Your task to perform on an android device: turn on the 12-hour format for clock Image 0: 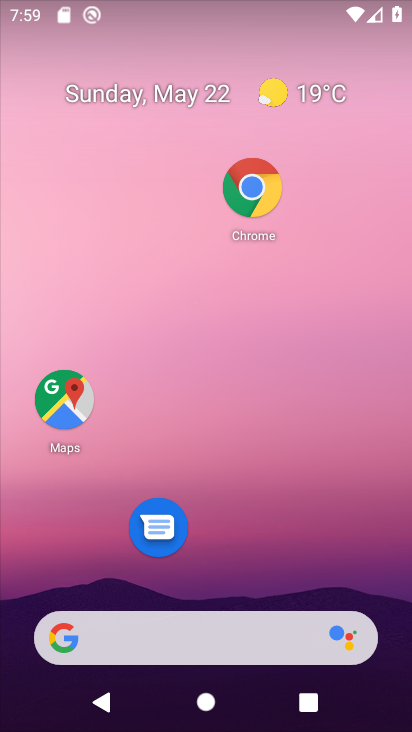
Step 0: press home button
Your task to perform on an android device: turn on the 12-hour format for clock Image 1: 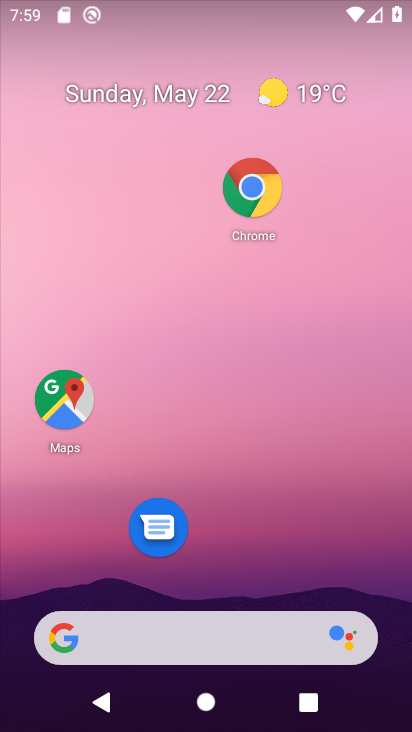
Step 1: drag from (234, 597) to (236, 56)
Your task to perform on an android device: turn on the 12-hour format for clock Image 2: 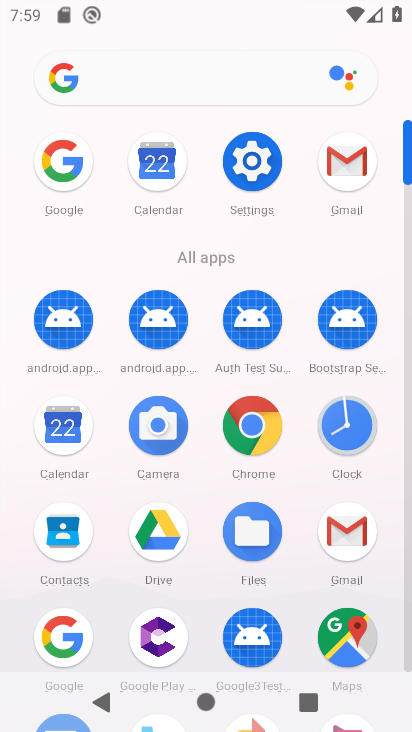
Step 2: click (346, 416)
Your task to perform on an android device: turn on the 12-hour format for clock Image 3: 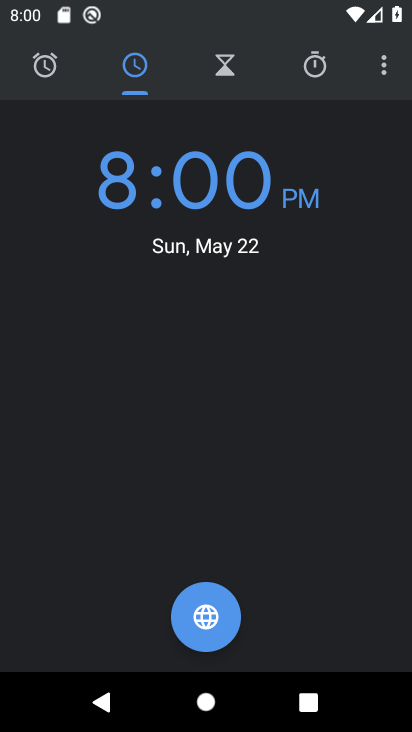
Step 3: click (380, 66)
Your task to perform on an android device: turn on the 12-hour format for clock Image 4: 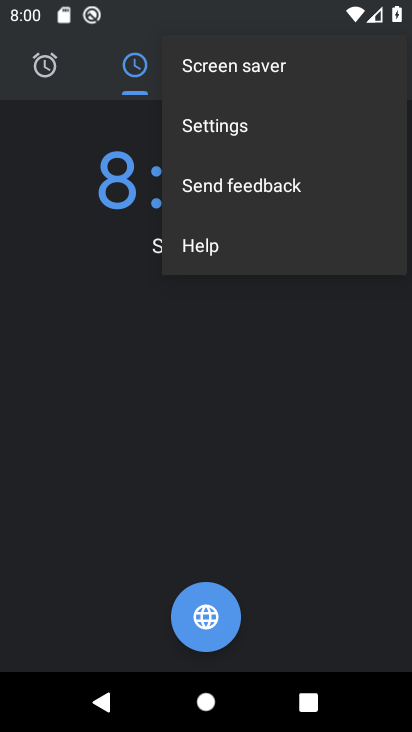
Step 4: click (257, 124)
Your task to perform on an android device: turn on the 12-hour format for clock Image 5: 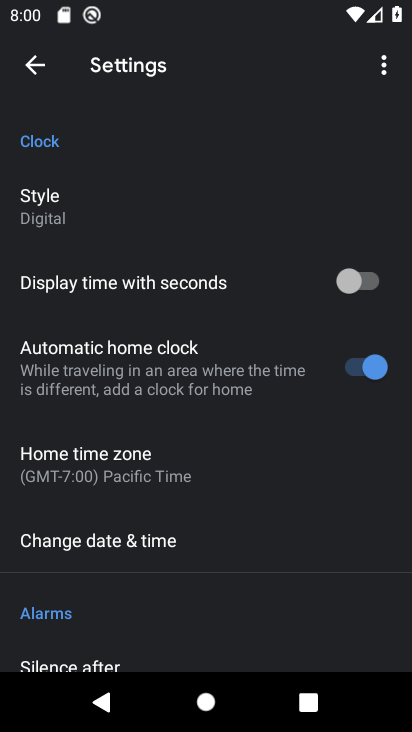
Step 5: click (182, 548)
Your task to perform on an android device: turn on the 12-hour format for clock Image 6: 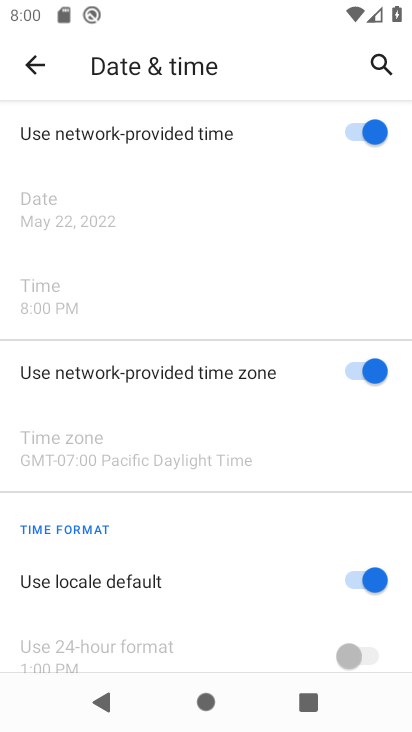
Step 6: click (358, 572)
Your task to perform on an android device: turn on the 12-hour format for clock Image 7: 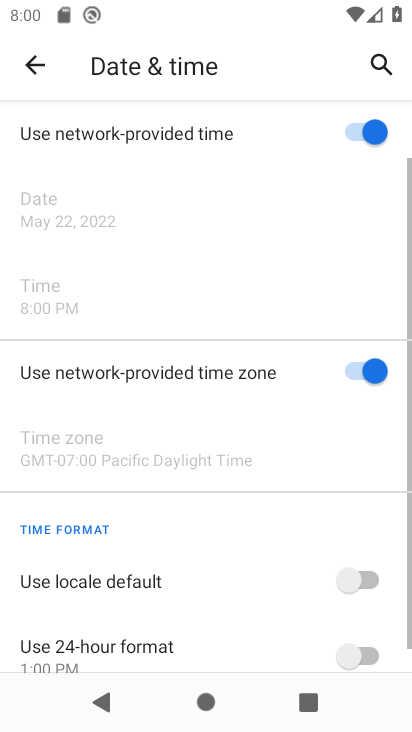
Step 7: click (369, 652)
Your task to perform on an android device: turn on the 12-hour format for clock Image 8: 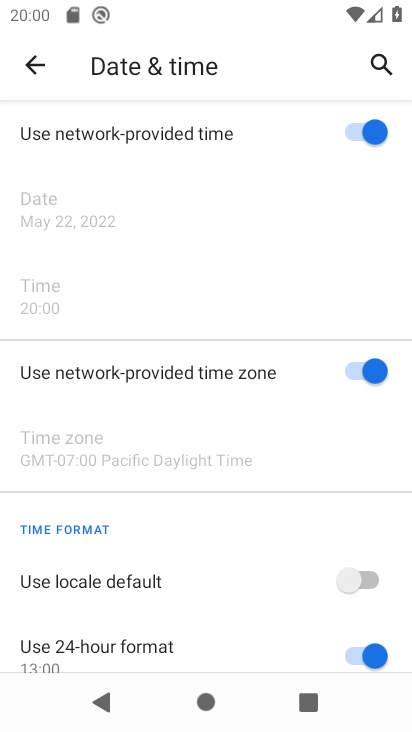
Step 8: click (366, 584)
Your task to perform on an android device: turn on the 12-hour format for clock Image 9: 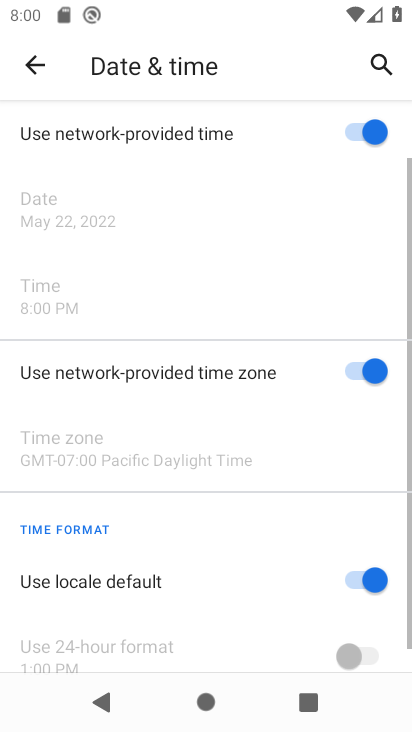
Step 9: task complete